Your task to perform on an android device: read, delete, or share a saved page in the chrome app Image 0: 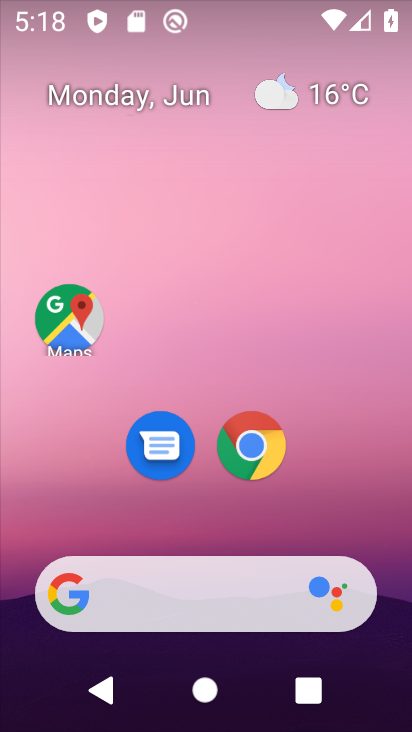
Step 0: click (250, 444)
Your task to perform on an android device: read, delete, or share a saved page in the chrome app Image 1: 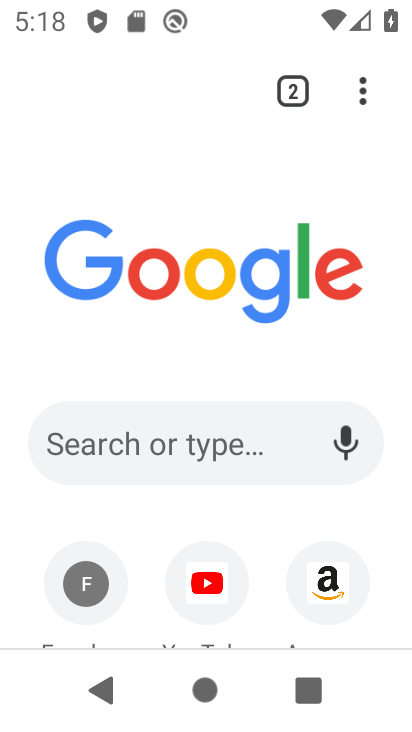
Step 1: click (362, 91)
Your task to perform on an android device: read, delete, or share a saved page in the chrome app Image 2: 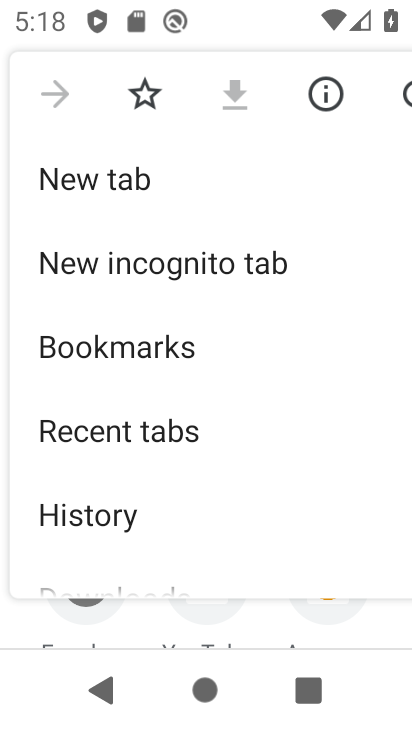
Step 2: drag from (124, 477) to (157, 312)
Your task to perform on an android device: read, delete, or share a saved page in the chrome app Image 3: 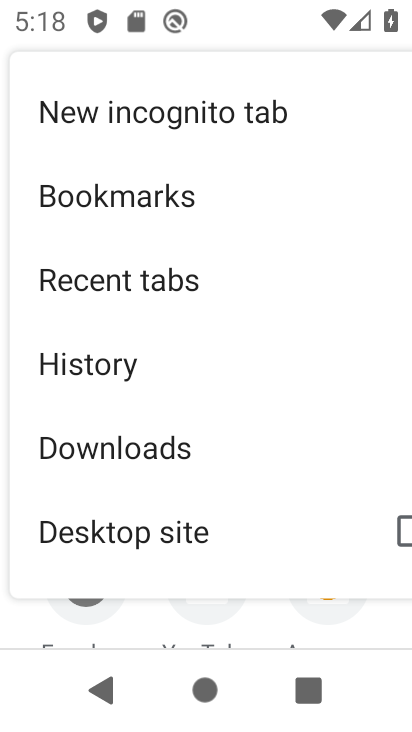
Step 3: click (144, 452)
Your task to perform on an android device: read, delete, or share a saved page in the chrome app Image 4: 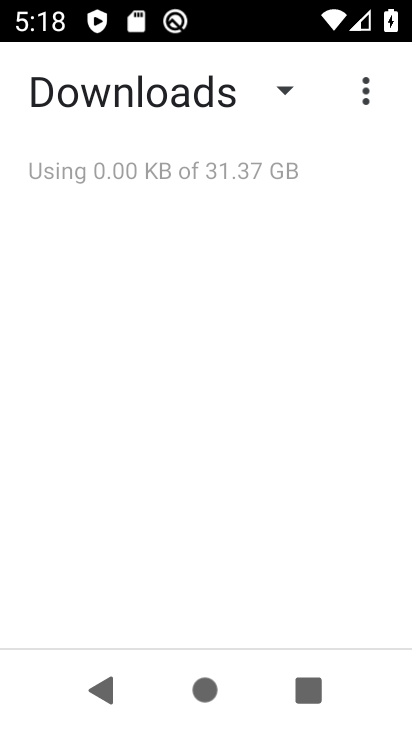
Step 4: click (289, 90)
Your task to perform on an android device: read, delete, or share a saved page in the chrome app Image 5: 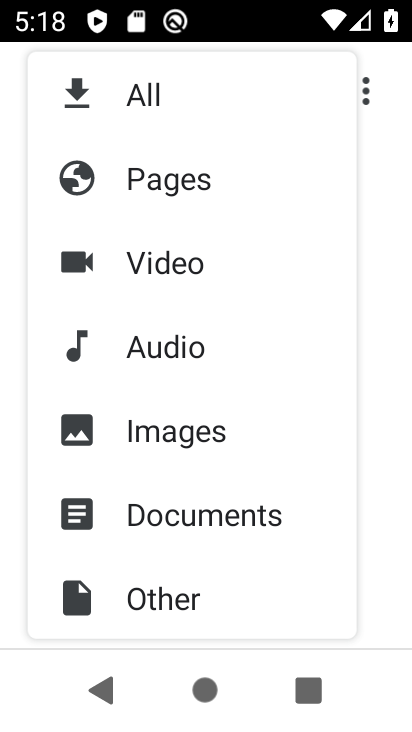
Step 5: click (148, 191)
Your task to perform on an android device: read, delete, or share a saved page in the chrome app Image 6: 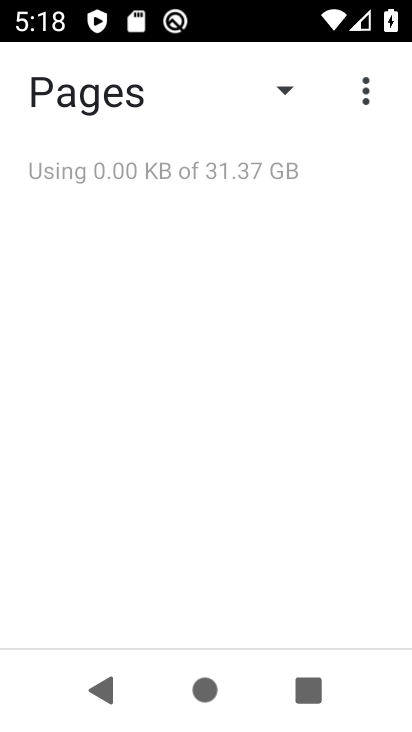
Step 6: click (304, 87)
Your task to perform on an android device: read, delete, or share a saved page in the chrome app Image 7: 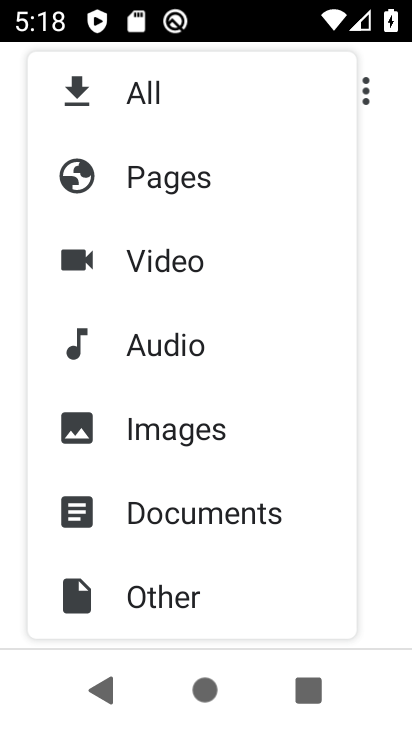
Step 7: drag from (196, 473) to (266, 251)
Your task to perform on an android device: read, delete, or share a saved page in the chrome app Image 8: 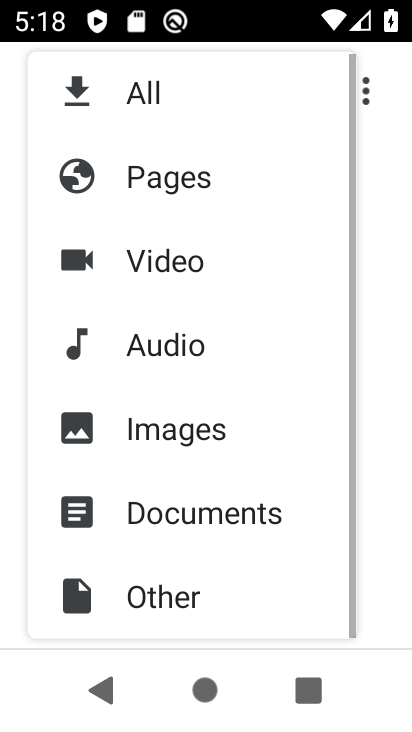
Step 8: click (189, 529)
Your task to perform on an android device: read, delete, or share a saved page in the chrome app Image 9: 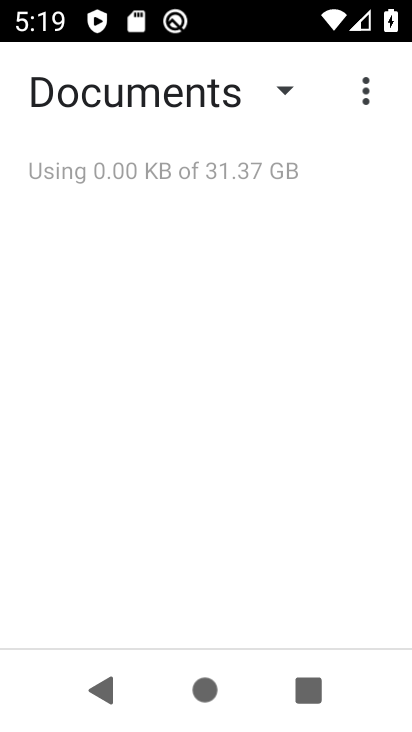
Step 9: task complete